Your task to perform on an android device: uninstall "Paramount+ | Peak Streaming" Image 0: 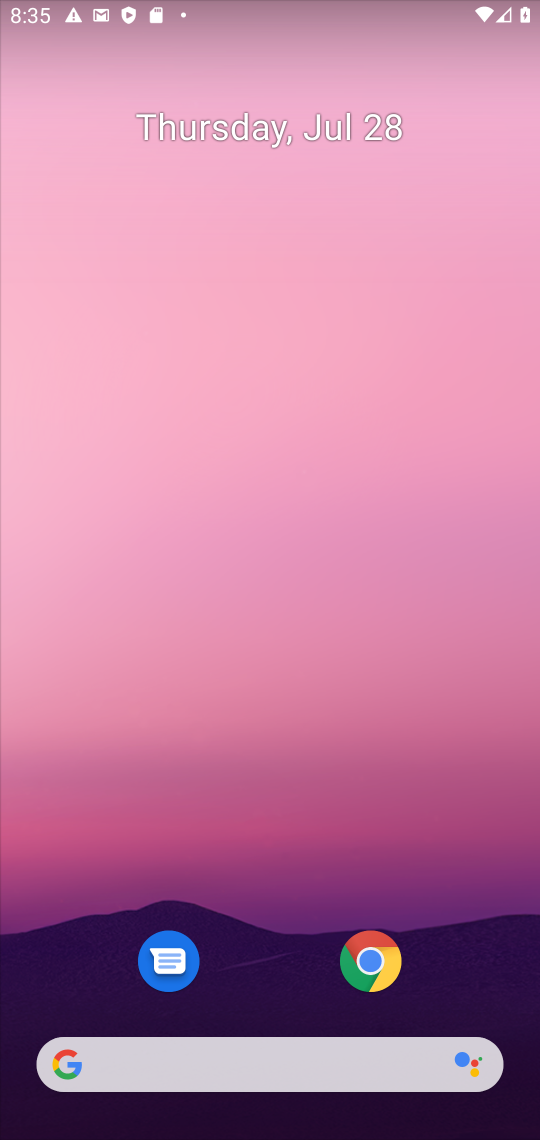
Step 0: drag from (290, 1010) to (126, 33)
Your task to perform on an android device: uninstall "Paramount+ | Peak Streaming" Image 1: 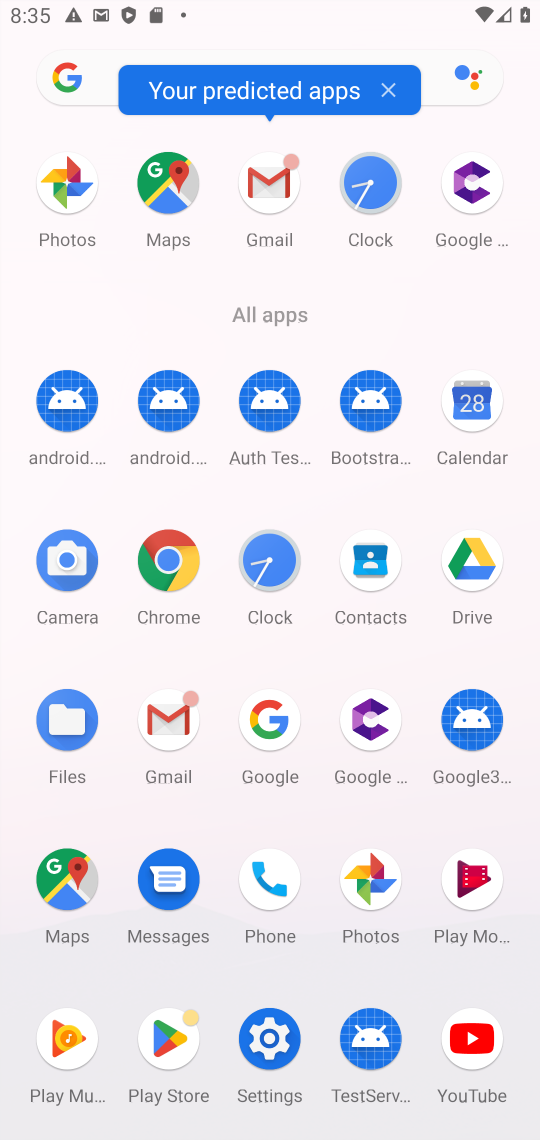
Step 1: click (169, 1039)
Your task to perform on an android device: uninstall "Paramount+ | Peak Streaming" Image 2: 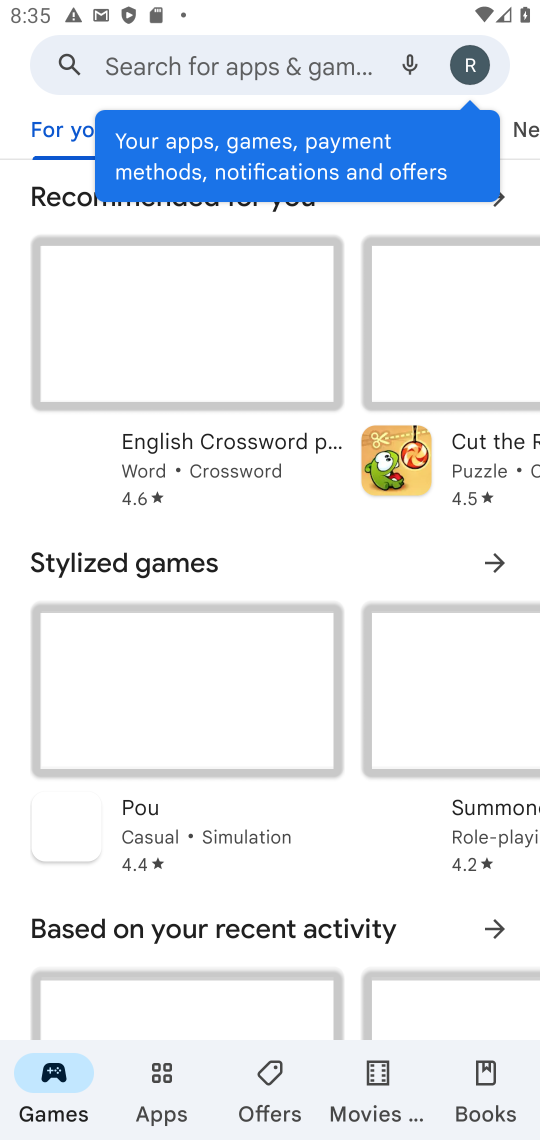
Step 2: click (198, 78)
Your task to perform on an android device: uninstall "Paramount+ | Peak Streaming" Image 3: 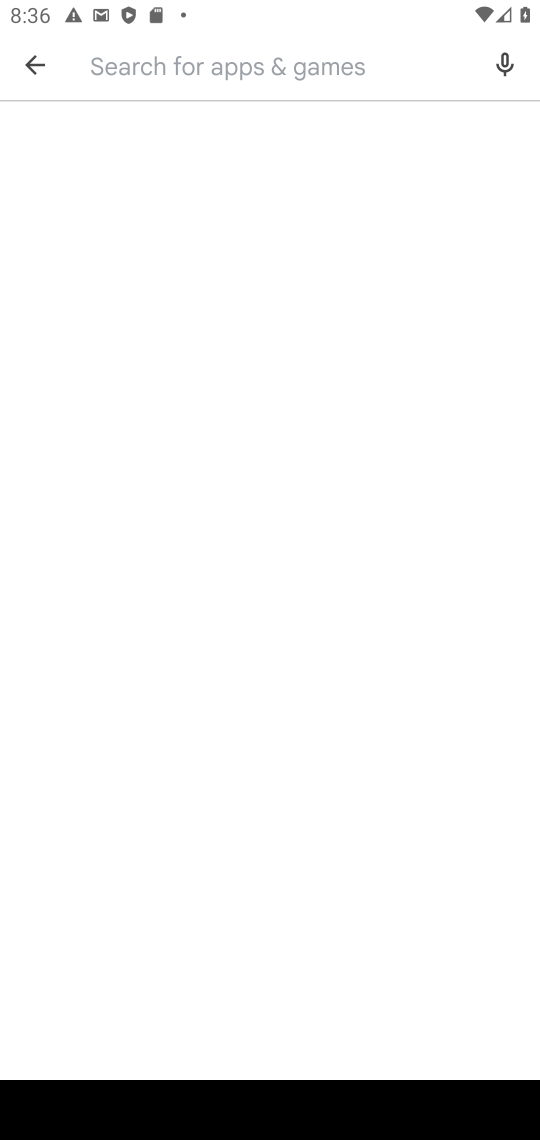
Step 3: type "Paramount+ | Peak Streaming"
Your task to perform on an android device: uninstall "Paramount+ | Peak Streaming" Image 4: 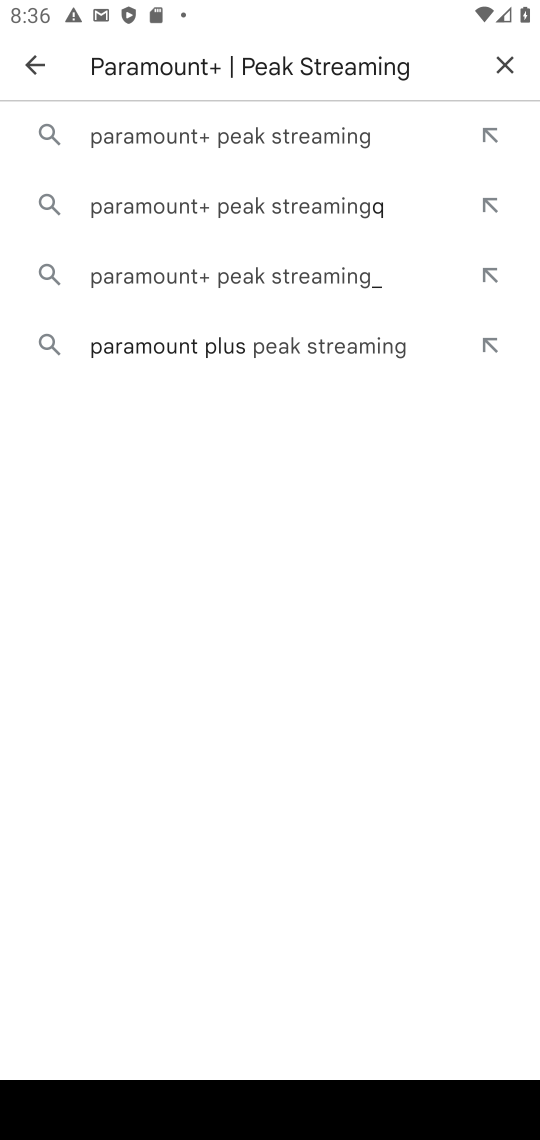
Step 4: click (316, 151)
Your task to perform on an android device: uninstall "Paramount+ | Peak Streaming" Image 5: 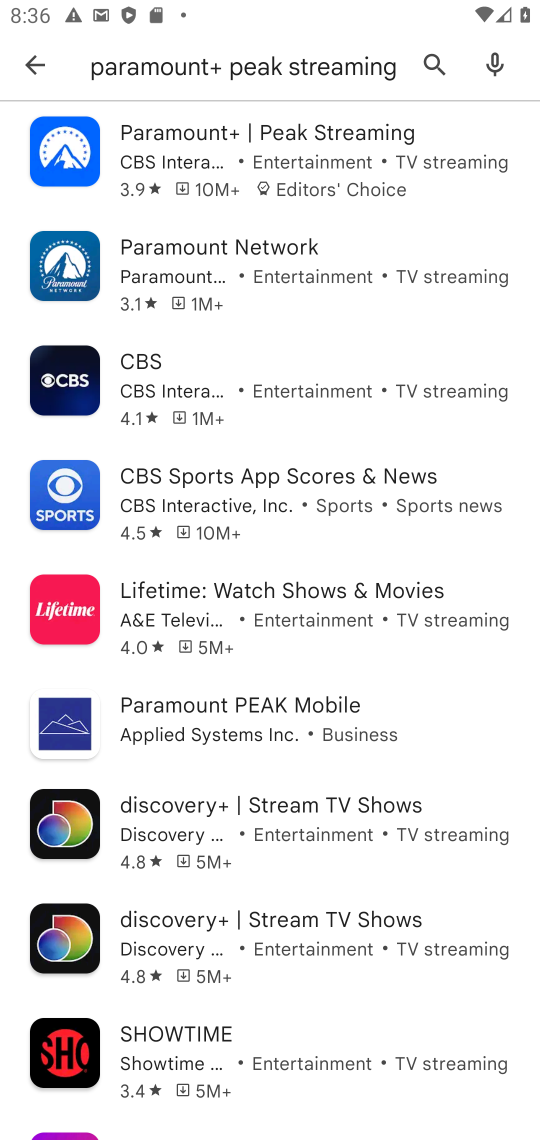
Step 5: click (316, 151)
Your task to perform on an android device: uninstall "Paramount+ | Peak Streaming" Image 6: 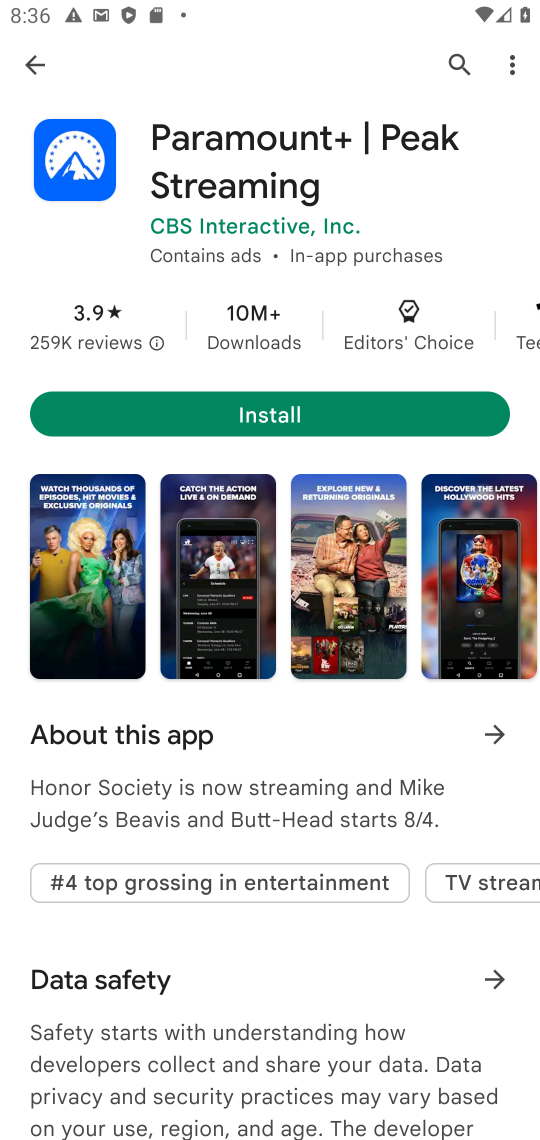
Step 6: task complete